Your task to perform on an android device: Open Google Maps Image 0: 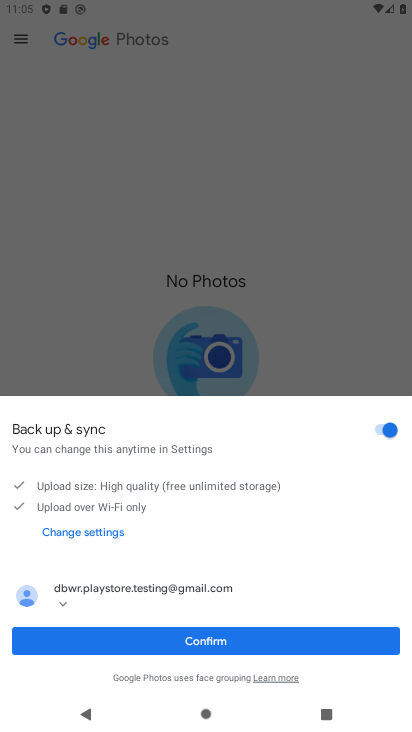
Step 0: press home button
Your task to perform on an android device: Open Google Maps Image 1: 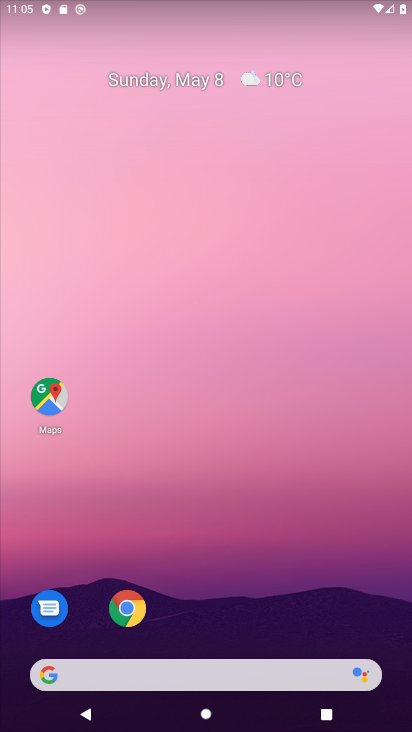
Step 1: click (41, 402)
Your task to perform on an android device: Open Google Maps Image 2: 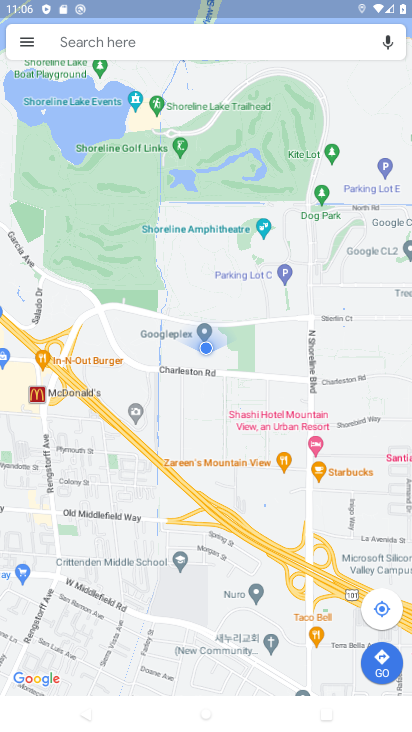
Step 2: task complete